Your task to perform on an android device: toggle translation in the chrome app Image 0: 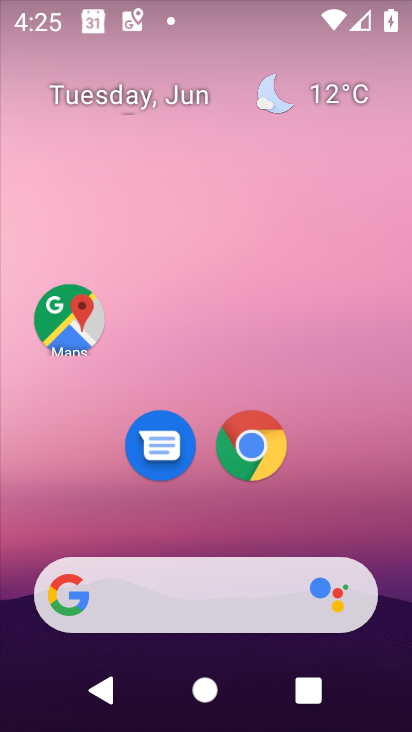
Step 0: drag from (306, 507) to (247, 4)
Your task to perform on an android device: toggle translation in the chrome app Image 1: 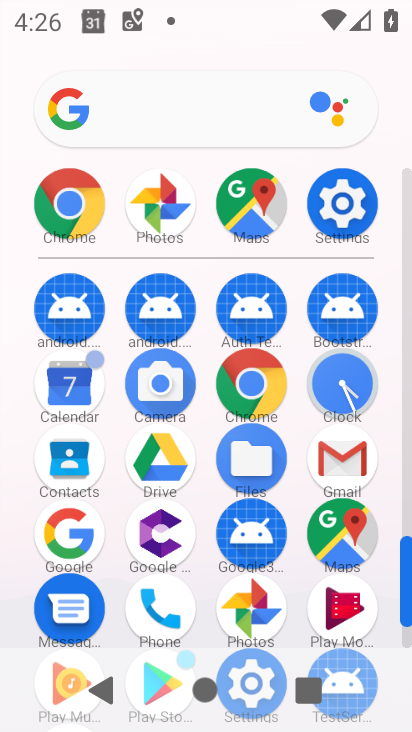
Step 1: click (61, 212)
Your task to perform on an android device: toggle translation in the chrome app Image 2: 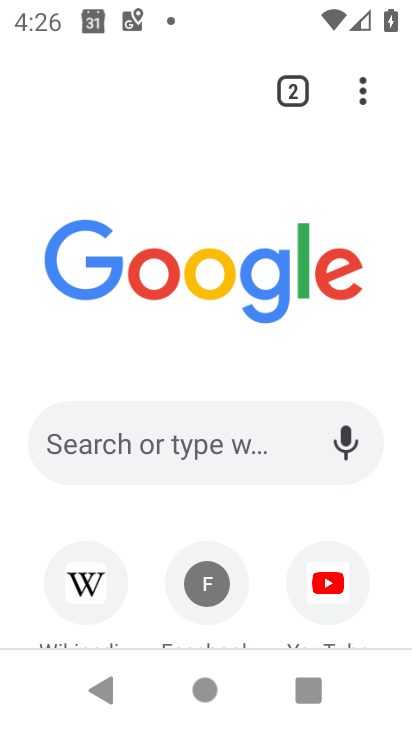
Step 2: drag from (366, 94) to (80, 498)
Your task to perform on an android device: toggle translation in the chrome app Image 3: 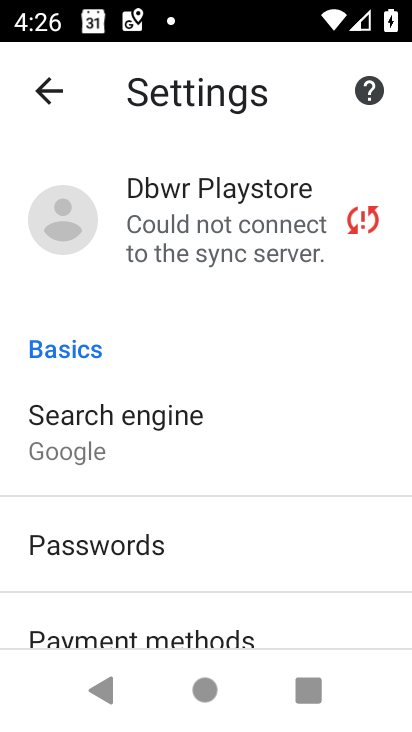
Step 3: drag from (173, 605) to (145, 197)
Your task to perform on an android device: toggle translation in the chrome app Image 4: 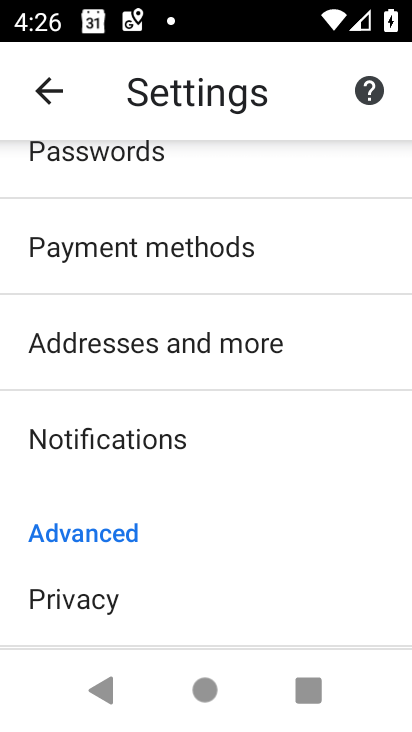
Step 4: drag from (213, 293) to (208, 712)
Your task to perform on an android device: toggle translation in the chrome app Image 5: 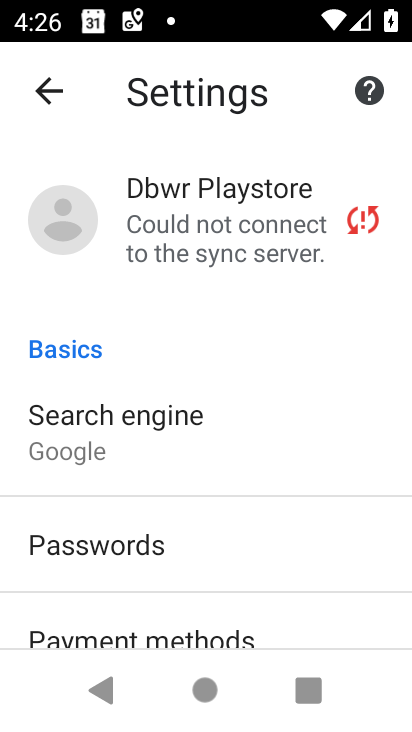
Step 5: drag from (163, 519) to (198, 124)
Your task to perform on an android device: toggle translation in the chrome app Image 6: 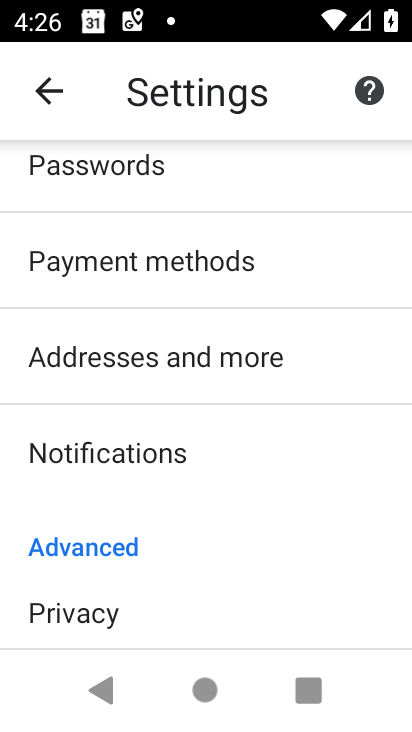
Step 6: drag from (204, 551) to (229, 118)
Your task to perform on an android device: toggle translation in the chrome app Image 7: 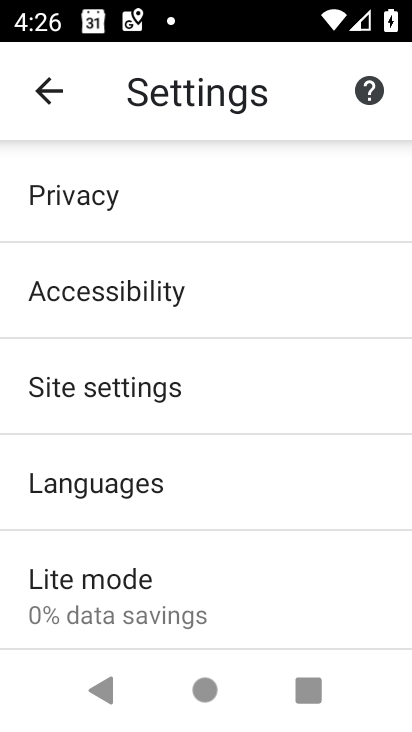
Step 7: drag from (177, 527) to (234, 169)
Your task to perform on an android device: toggle translation in the chrome app Image 8: 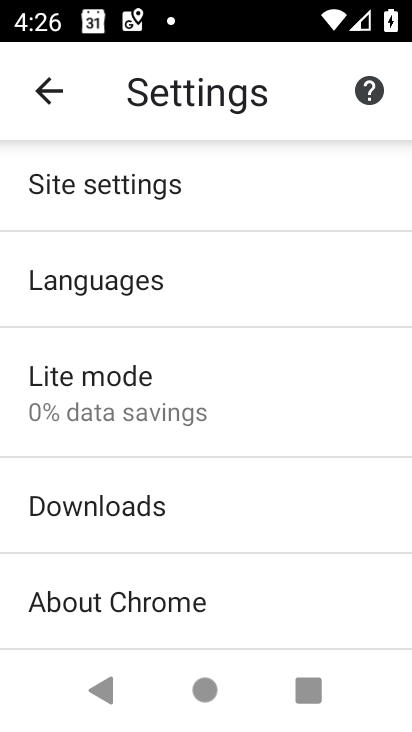
Step 8: click (122, 385)
Your task to perform on an android device: toggle translation in the chrome app Image 9: 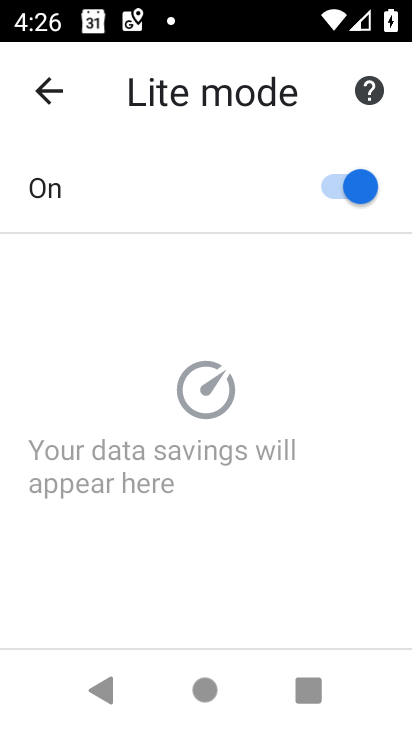
Step 9: click (360, 215)
Your task to perform on an android device: toggle translation in the chrome app Image 10: 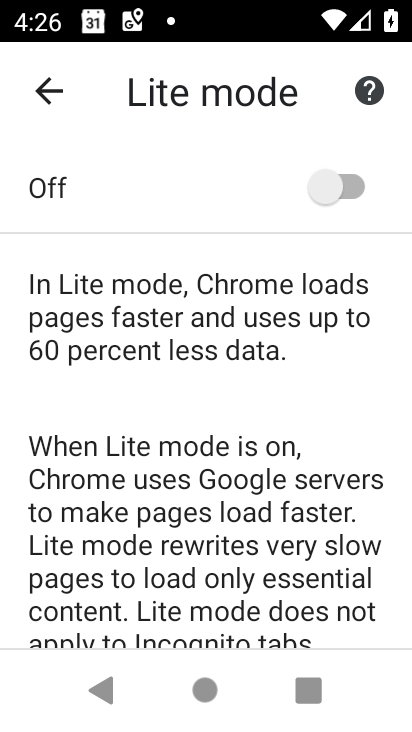
Step 10: task complete